Your task to perform on an android device: create a new album in the google photos Image 0: 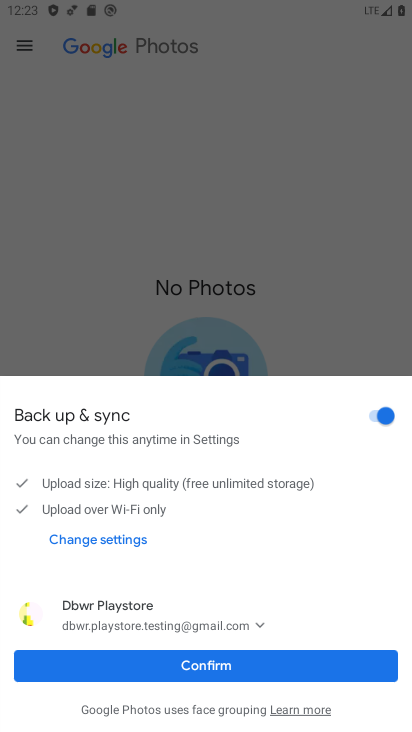
Step 0: press home button
Your task to perform on an android device: create a new album in the google photos Image 1: 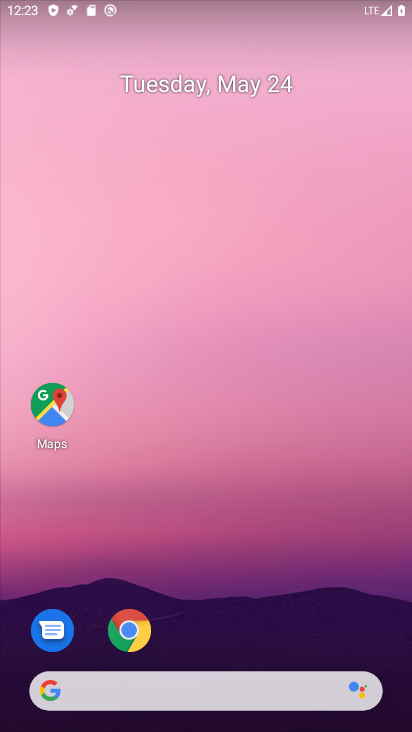
Step 1: drag from (319, 645) to (330, 292)
Your task to perform on an android device: create a new album in the google photos Image 2: 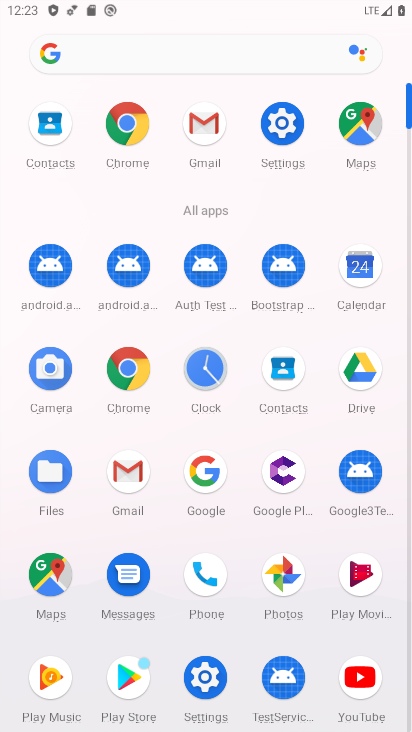
Step 2: click (281, 576)
Your task to perform on an android device: create a new album in the google photos Image 3: 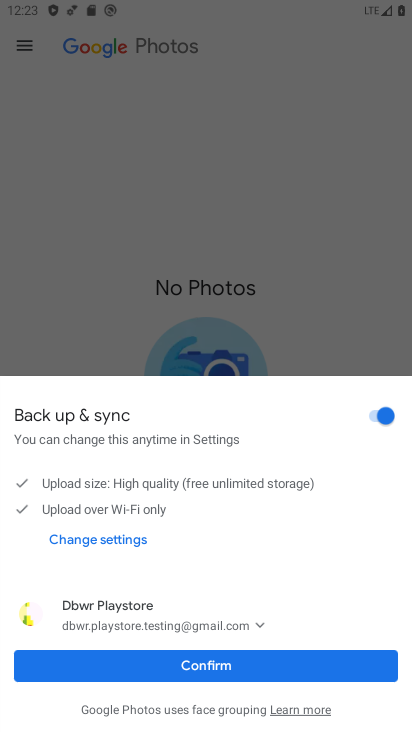
Step 3: click (225, 676)
Your task to perform on an android device: create a new album in the google photos Image 4: 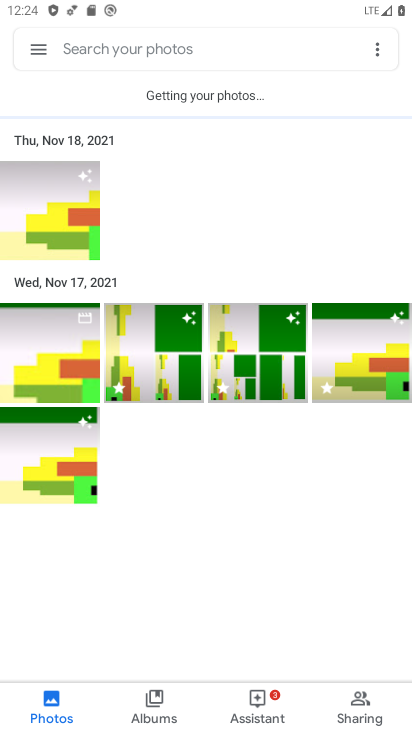
Step 4: click (76, 376)
Your task to perform on an android device: create a new album in the google photos Image 5: 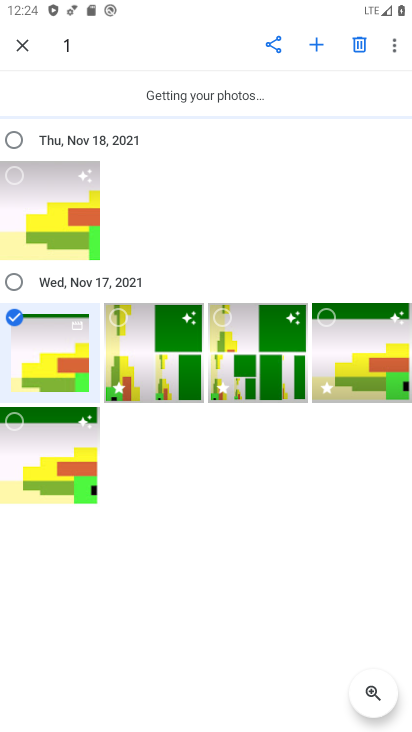
Step 5: click (129, 367)
Your task to perform on an android device: create a new album in the google photos Image 6: 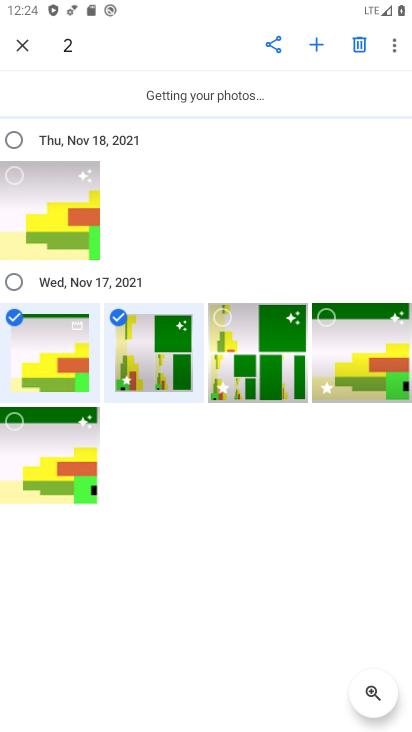
Step 6: click (249, 381)
Your task to perform on an android device: create a new album in the google photos Image 7: 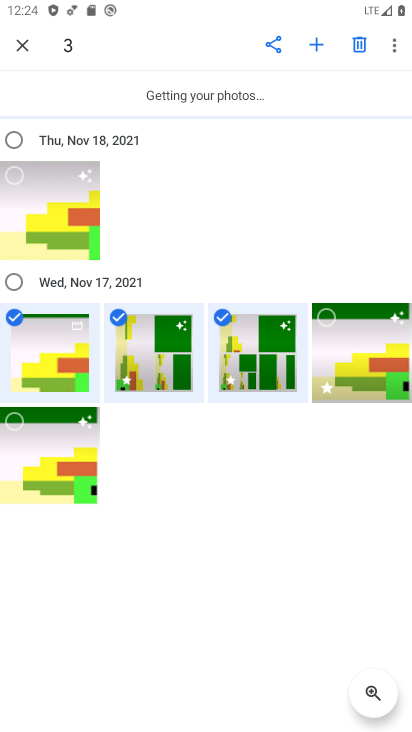
Step 7: click (316, 42)
Your task to perform on an android device: create a new album in the google photos Image 8: 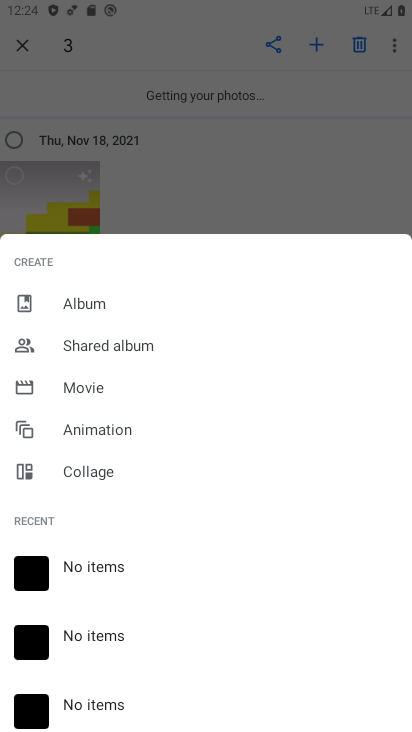
Step 8: click (167, 296)
Your task to perform on an android device: create a new album in the google photos Image 9: 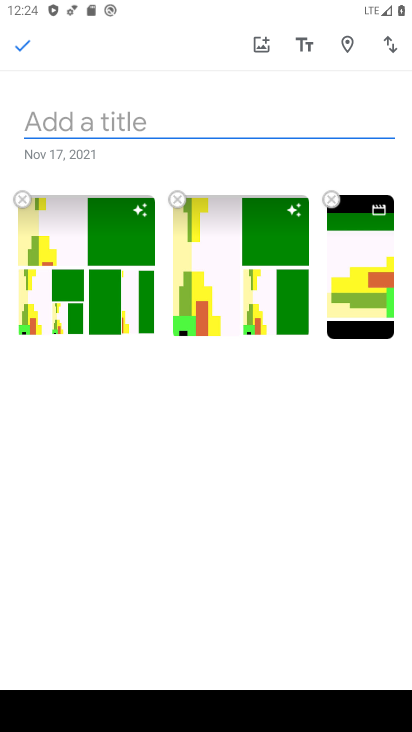
Step 9: type "trtrtrrt"
Your task to perform on an android device: create a new album in the google photos Image 10: 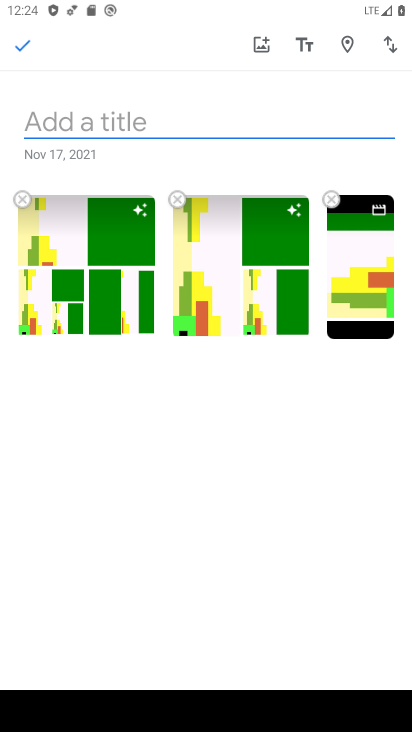
Step 10: click (23, 47)
Your task to perform on an android device: create a new album in the google photos Image 11: 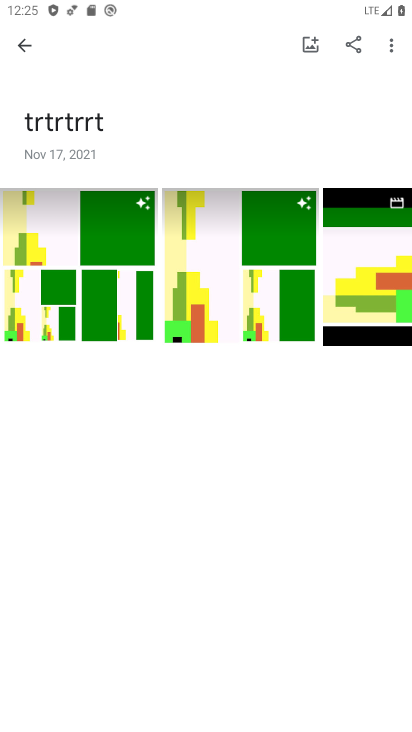
Step 11: task complete